Your task to perform on an android device: change the clock display to show seconds Image 0: 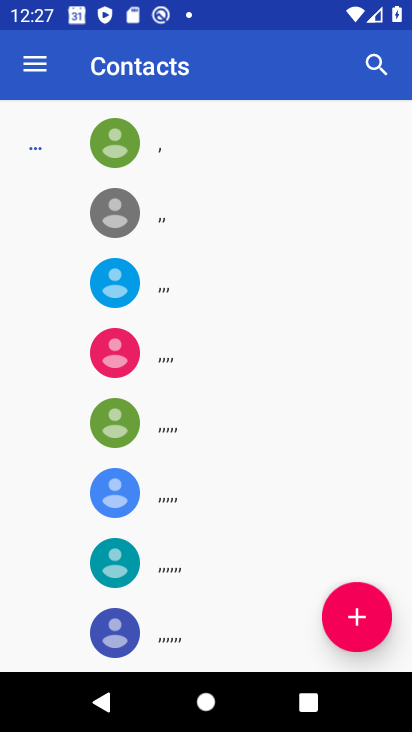
Step 0: press home button
Your task to perform on an android device: change the clock display to show seconds Image 1: 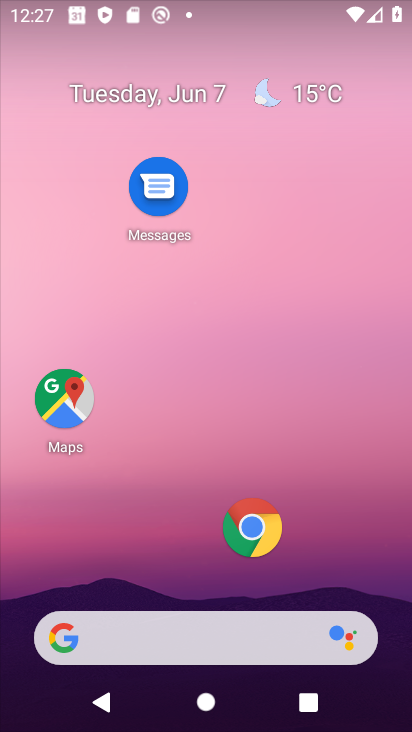
Step 1: drag from (225, 606) to (225, 116)
Your task to perform on an android device: change the clock display to show seconds Image 2: 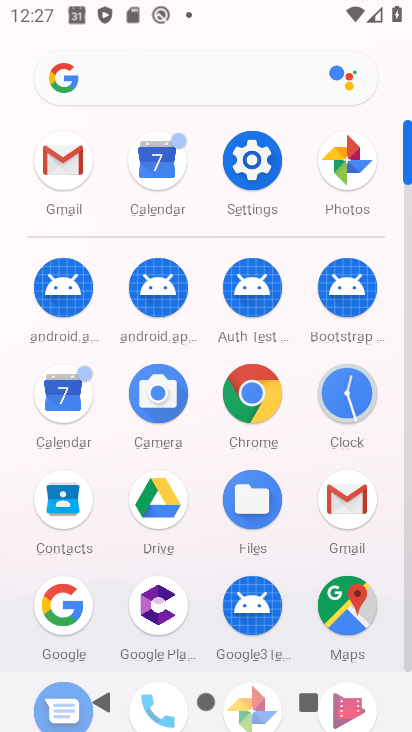
Step 2: click (357, 411)
Your task to perform on an android device: change the clock display to show seconds Image 3: 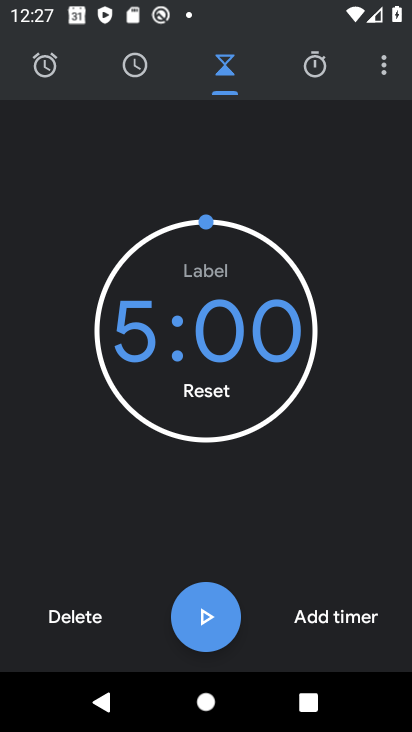
Step 3: click (388, 60)
Your task to perform on an android device: change the clock display to show seconds Image 4: 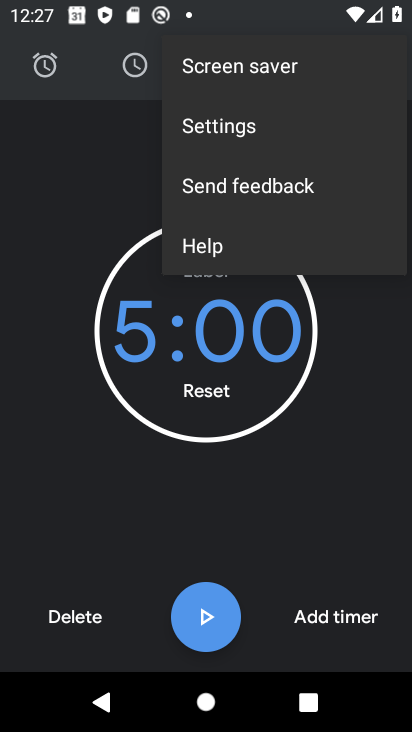
Step 4: click (233, 118)
Your task to perform on an android device: change the clock display to show seconds Image 5: 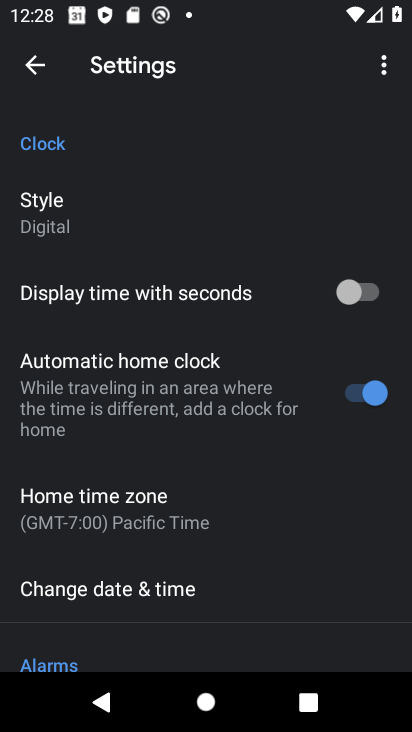
Step 5: click (372, 289)
Your task to perform on an android device: change the clock display to show seconds Image 6: 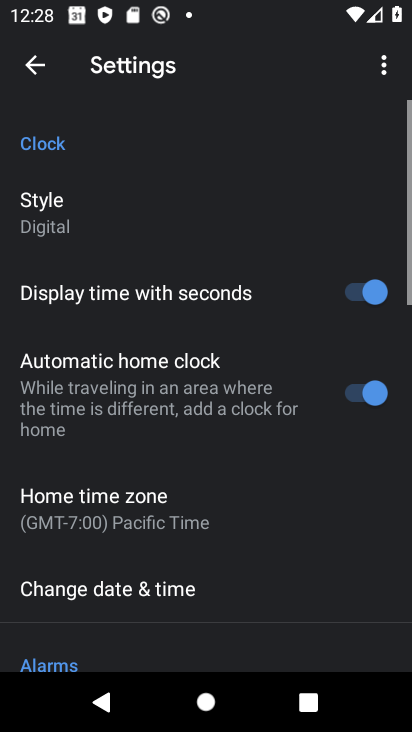
Step 6: task complete